Your task to perform on an android device: turn on javascript in the chrome app Image 0: 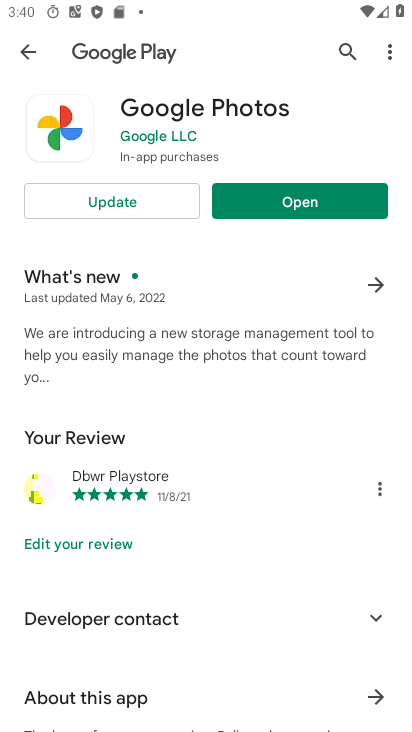
Step 0: press home button
Your task to perform on an android device: turn on javascript in the chrome app Image 1: 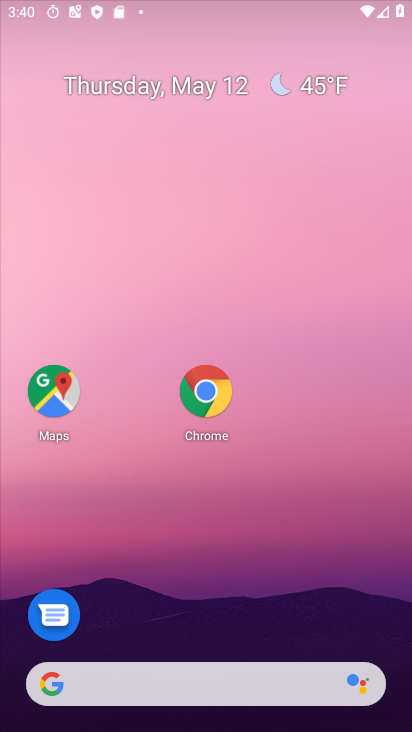
Step 1: drag from (218, 611) to (222, 137)
Your task to perform on an android device: turn on javascript in the chrome app Image 2: 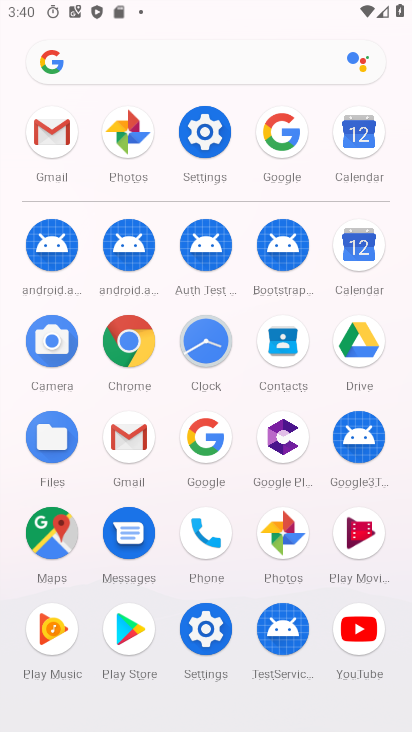
Step 2: click (130, 339)
Your task to perform on an android device: turn on javascript in the chrome app Image 3: 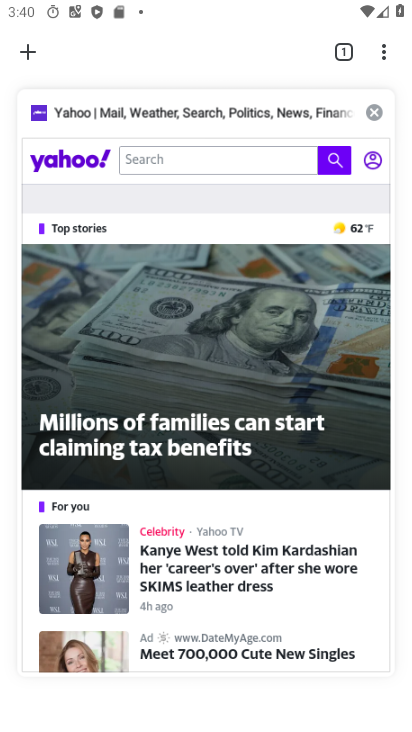
Step 3: press back button
Your task to perform on an android device: turn on javascript in the chrome app Image 4: 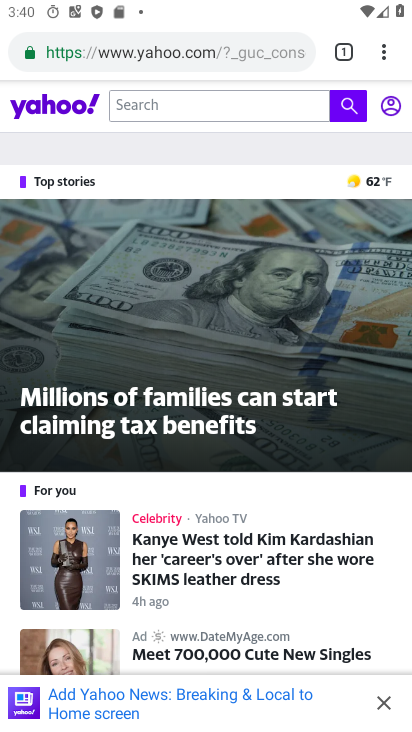
Step 4: click (372, 47)
Your task to perform on an android device: turn on javascript in the chrome app Image 5: 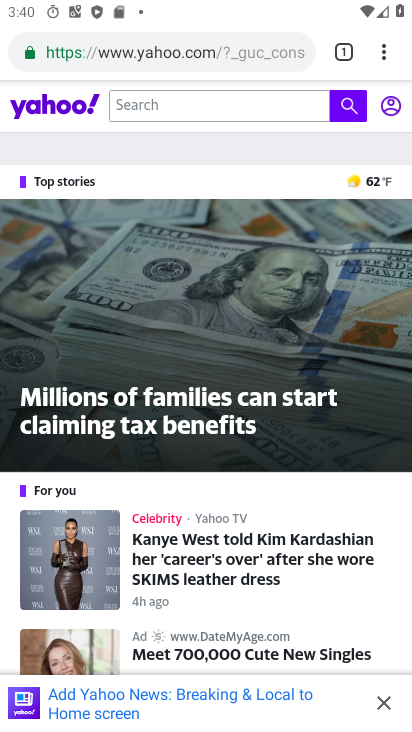
Step 5: click (377, 50)
Your task to perform on an android device: turn on javascript in the chrome app Image 6: 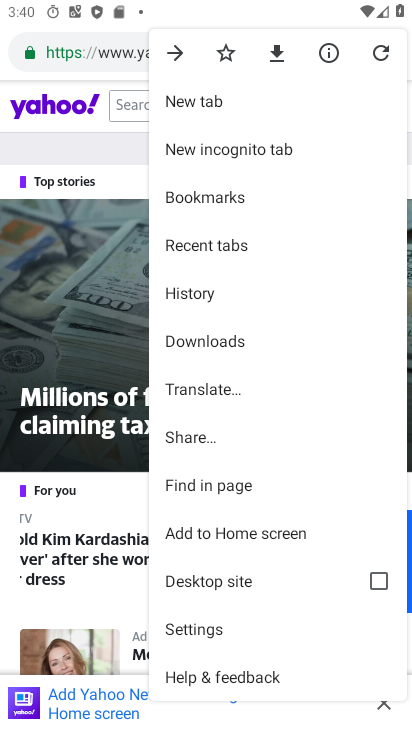
Step 6: click (214, 627)
Your task to perform on an android device: turn on javascript in the chrome app Image 7: 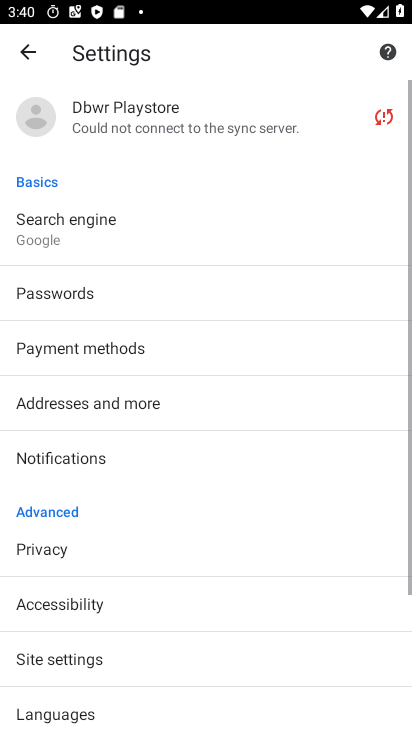
Step 7: drag from (180, 590) to (164, 288)
Your task to perform on an android device: turn on javascript in the chrome app Image 8: 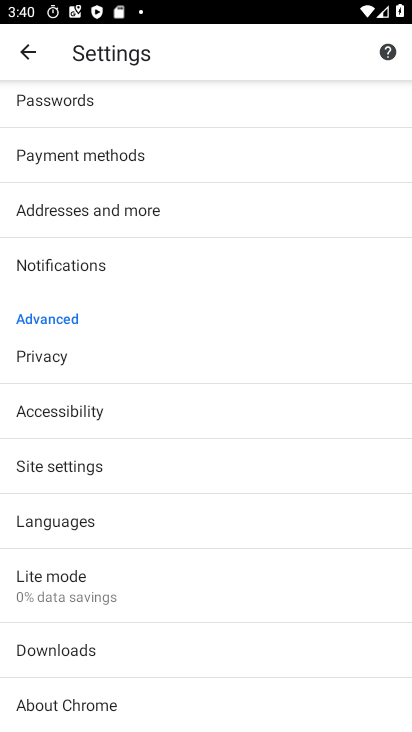
Step 8: click (116, 467)
Your task to perform on an android device: turn on javascript in the chrome app Image 9: 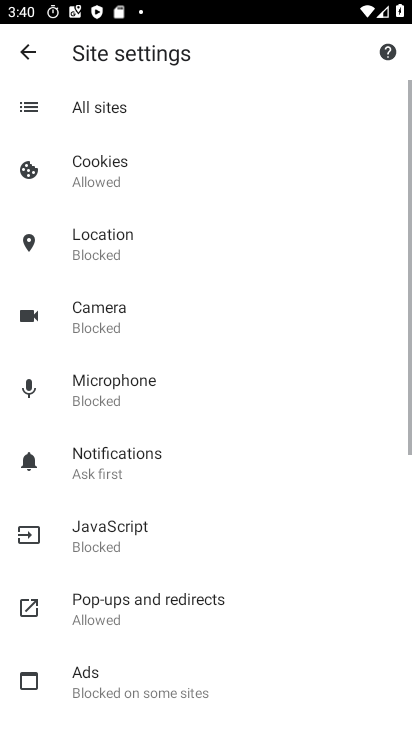
Step 9: click (138, 540)
Your task to perform on an android device: turn on javascript in the chrome app Image 10: 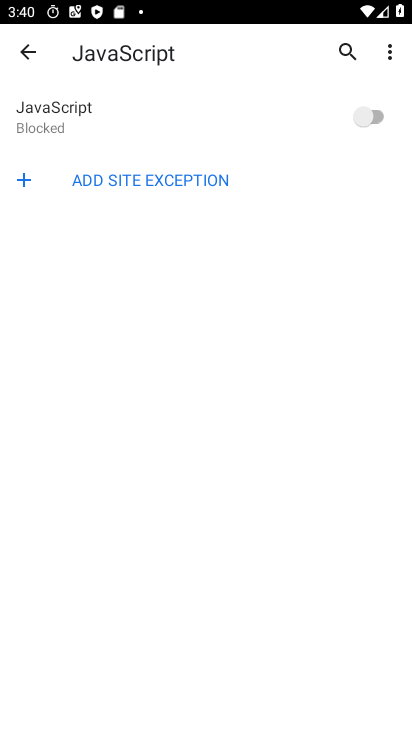
Step 10: click (372, 108)
Your task to perform on an android device: turn on javascript in the chrome app Image 11: 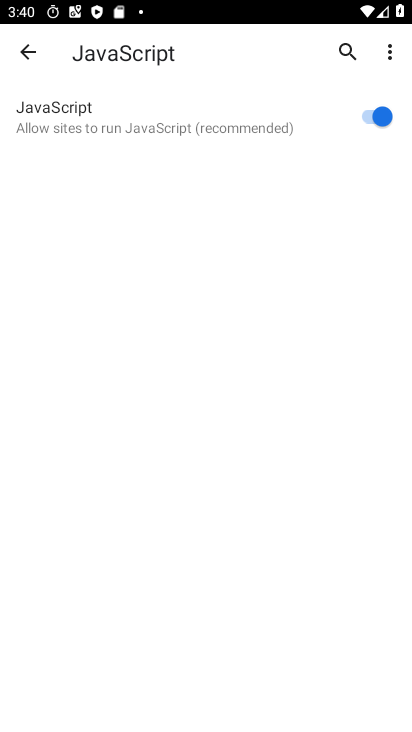
Step 11: task complete